Your task to perform on an android device: check data usage Image 0: 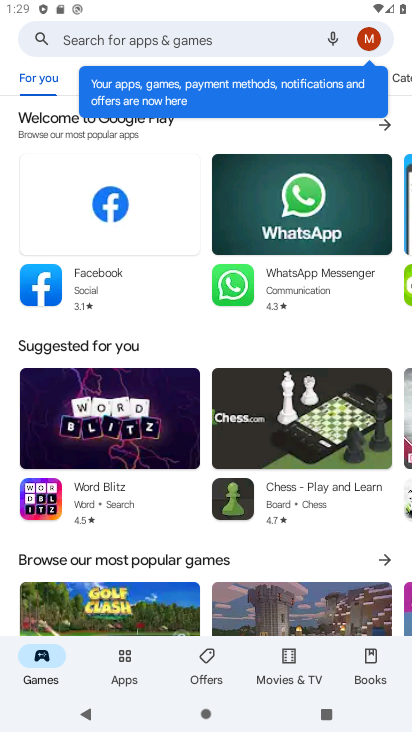
Step 0: press home button
Your task to perform on an android device: check data usage Image 1: 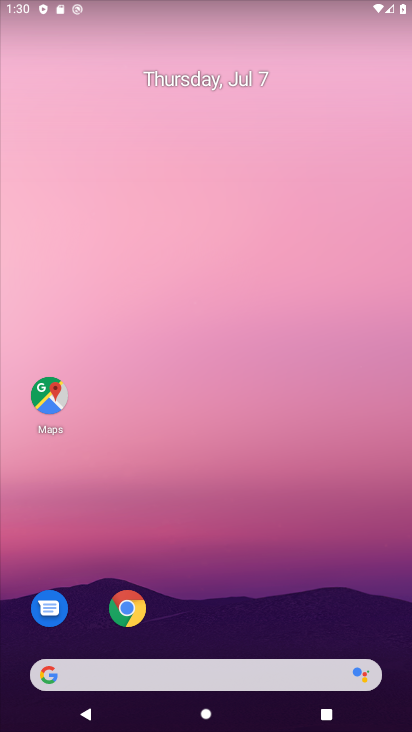
Step 1: drag from (192, 653) to (301, 198)
Your task to perform on an android device: check data usage Image 2: 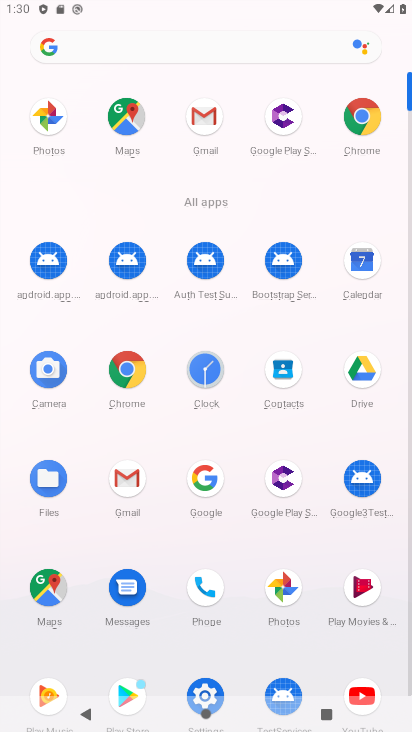
Step 2: click (202, 683)
Your task to perform on an android device: check data usage Image 3: 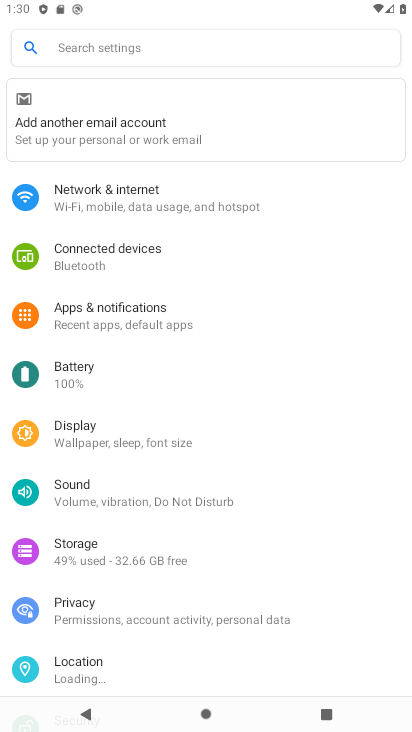
Step 3: click (182, 203)
Your task to perform on an android device: check data usage Image 4: 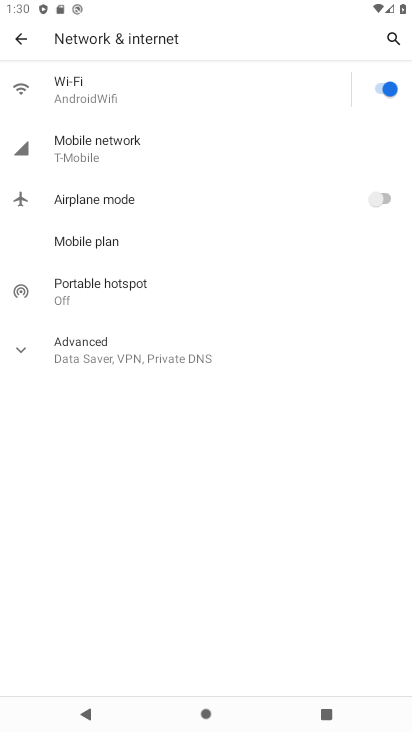
Step 4: click (174, 162)
Your task to perform on an android device: check data usage Image 5: 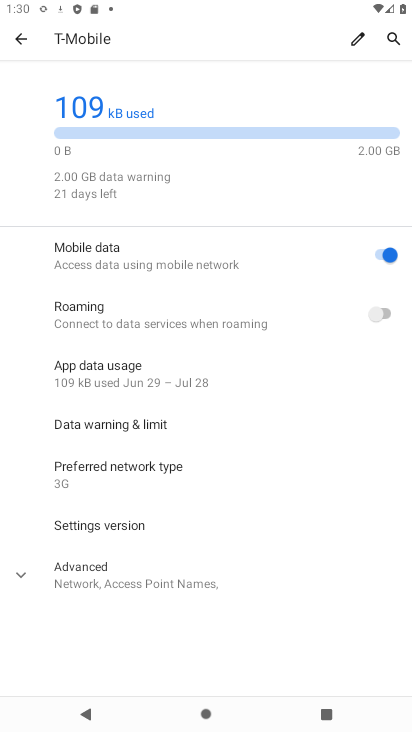
Step 5: click (131, 382)
Your task to perform on an android device: check data usage Image 6: 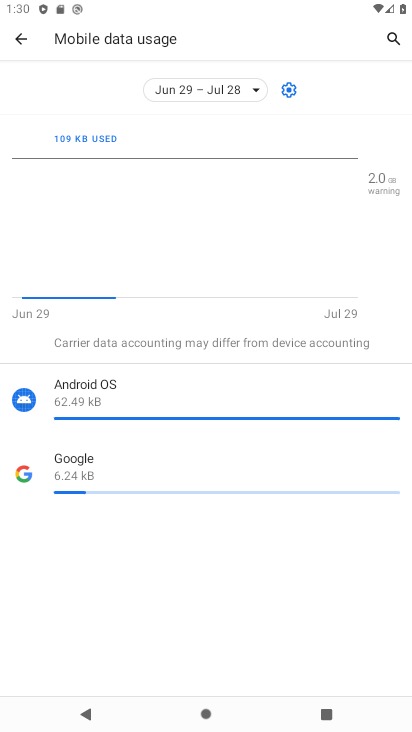
Step 6: task complete